Your task to perform on an android device: Search for vegetarian restaurants on Maps Image 0: 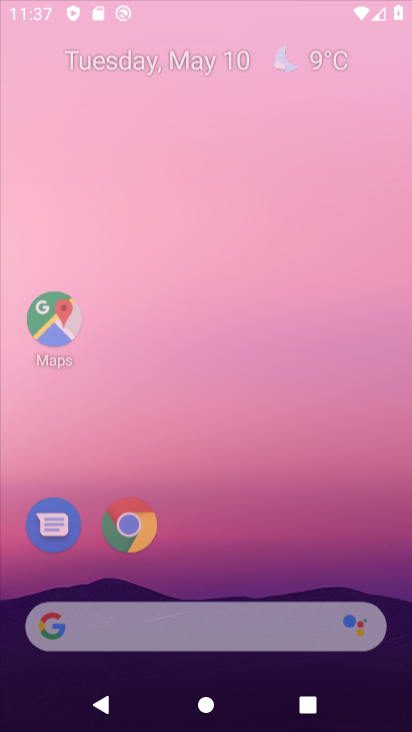
Step 0: drag from (256, 602) to (288, 148)
Your task to perform on an android device: Search for vegetarian restaurants on Maps Image 1: 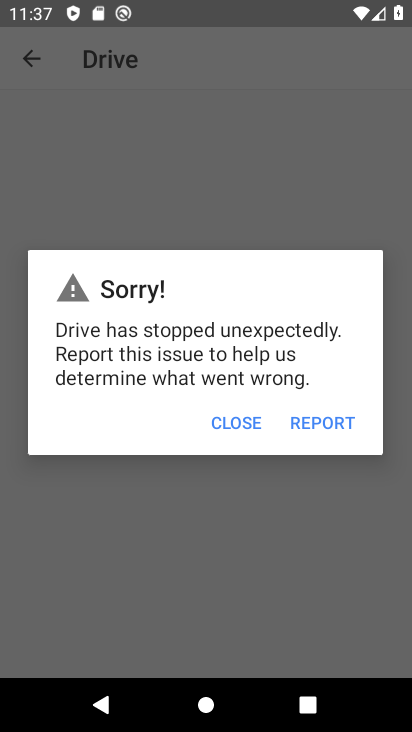
Step 1: press home button
Your task to perform on an android device: Search for vegetarian restaurants on Maps Image 2: 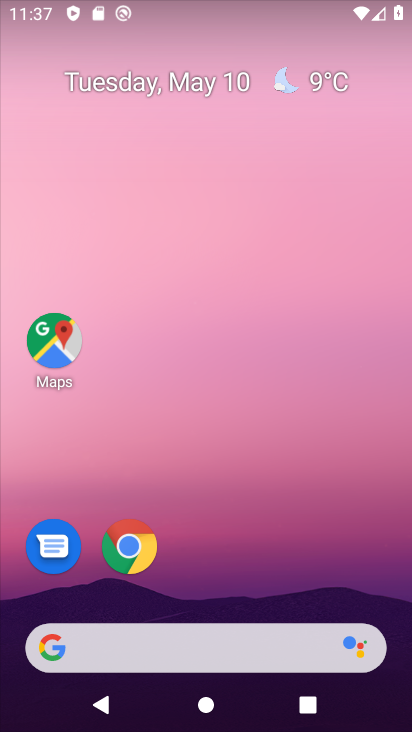
Step 2: drag from (186, 606) to (291, 125)
Your task to perform on an android device: Search for vegetarian restaurants on Maps Image 3: 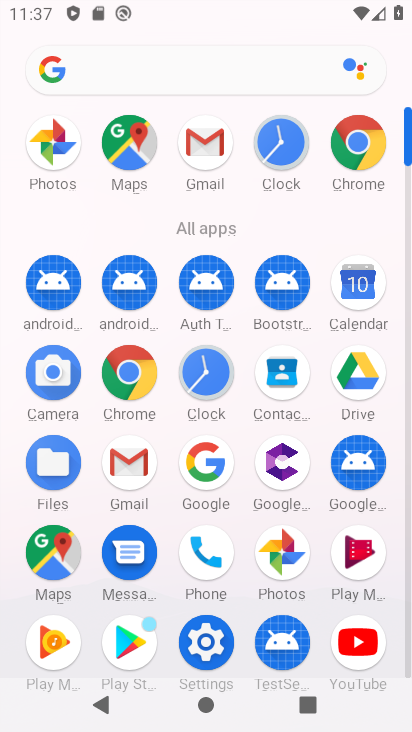
Step 3: click (121, 147)
Your task to perform on an android device: Search for vegetarian restaurants on Maps Image 4: 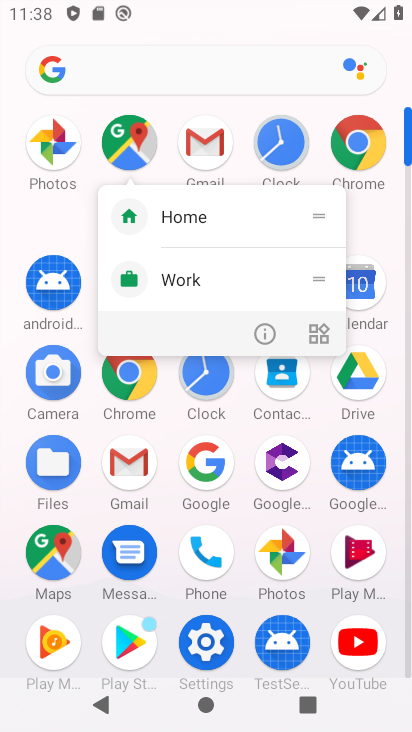
Step 4: click (257, 336)
Your task to perform on an android device: Search for vegetarian restaurants on Maps Image 5: 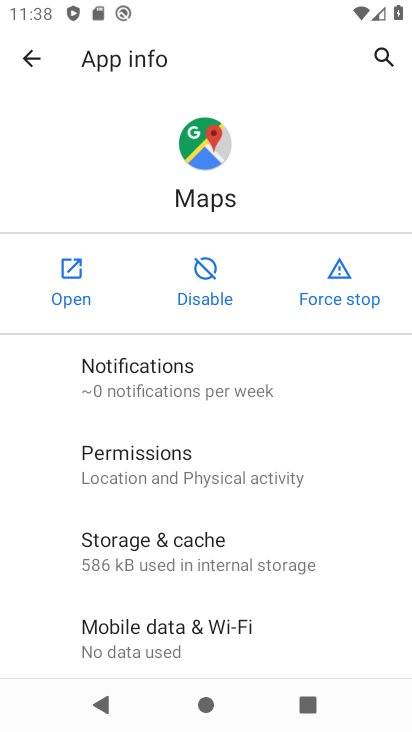
Step 5: click (76, 301)
Your task to perform on an android device: Search for vegetarian restaurants on Maps Image 6: 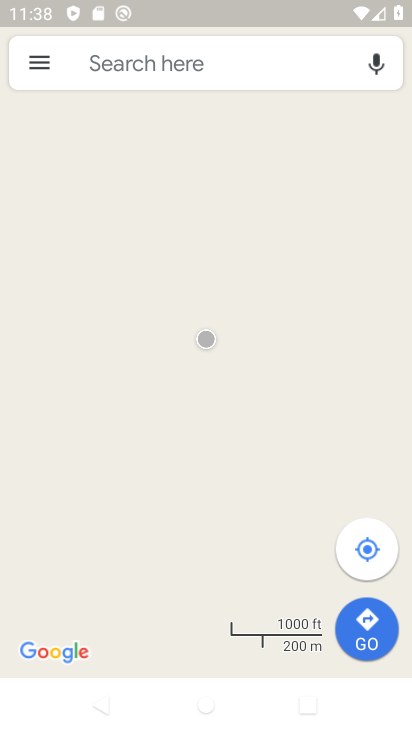
Step 6: click (223, 87)
Your task to perform on an android device: Search for vegetarian restaurants on Maps Image 7: 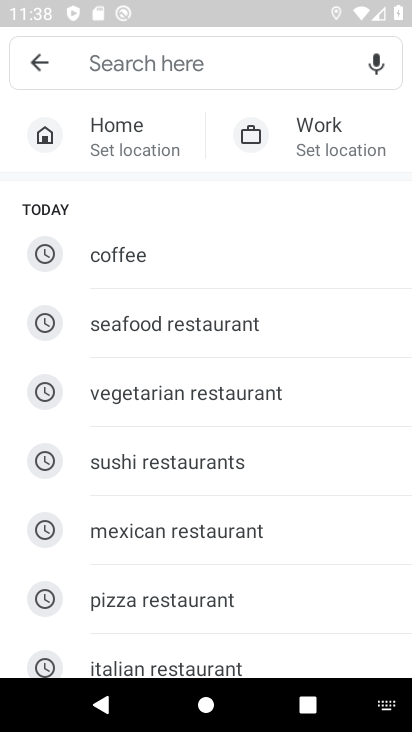
Step 7: type "vegeta"
Your task to perform on an android device: Search for vegetarian restaurants on Maps Image 8: 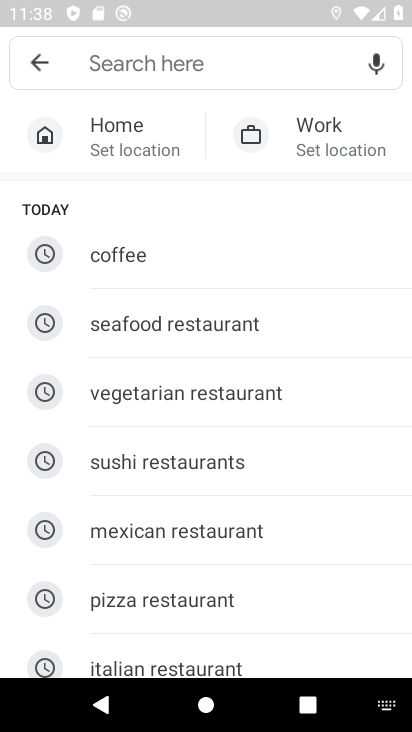
Step 8: click (144, 416)
Your task to perform on an android device: Search for vegetarian restaurants on Maps Image 9: 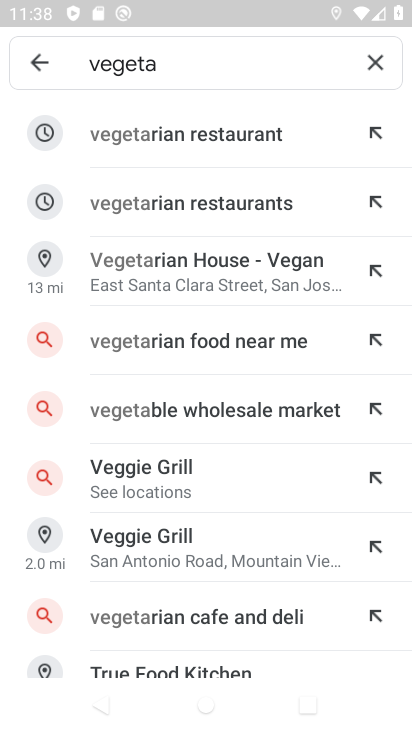
Step 9: drag from (166, 638) to (282, 603)
Your task to perform on an android device: Search for vegetarian restaurants on Maps Image 10: 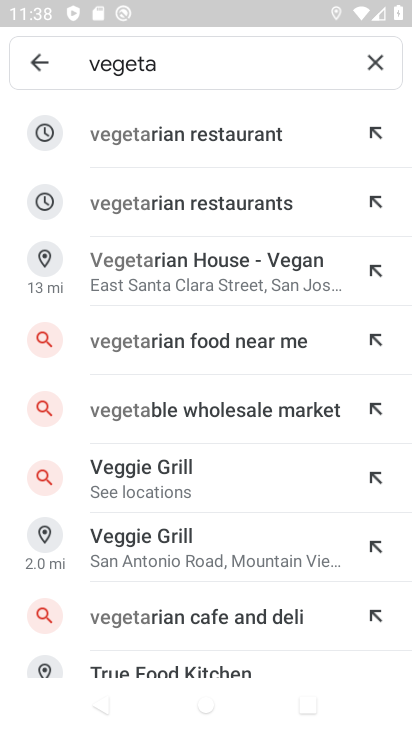
Step 10: click (175, 137)
Your task to perform on an android device: Search for vegetarian restaurants on Maps Image 11: 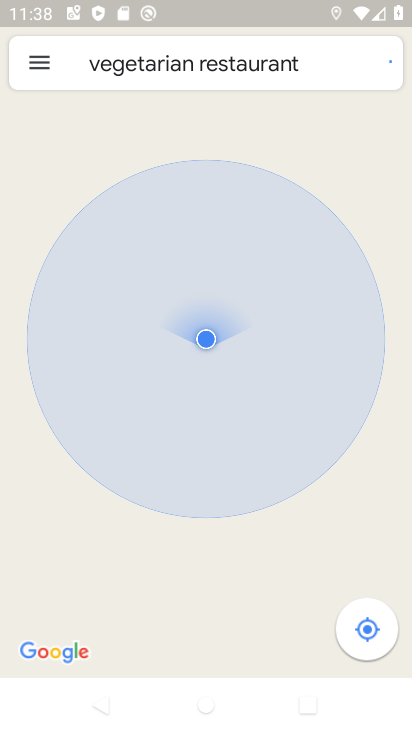
Step 11: task complete